Your task to perform on an android device: turn on translation in the chrome app Image 0: 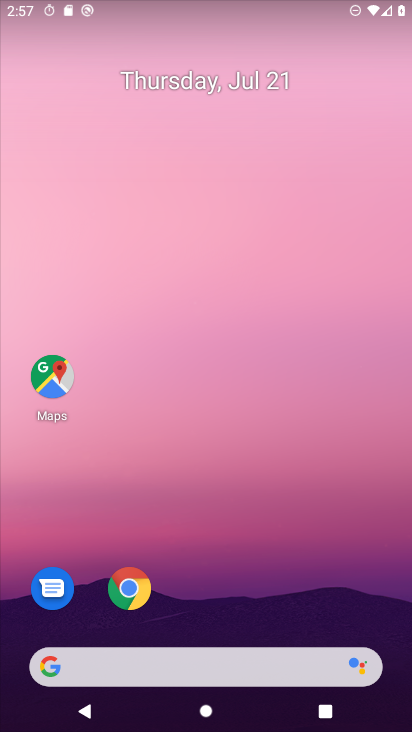
Step 0: drag from (230, 648) to (279, 181)
Your task to perform on an android device: turn on translation in the chrome app Image 1: 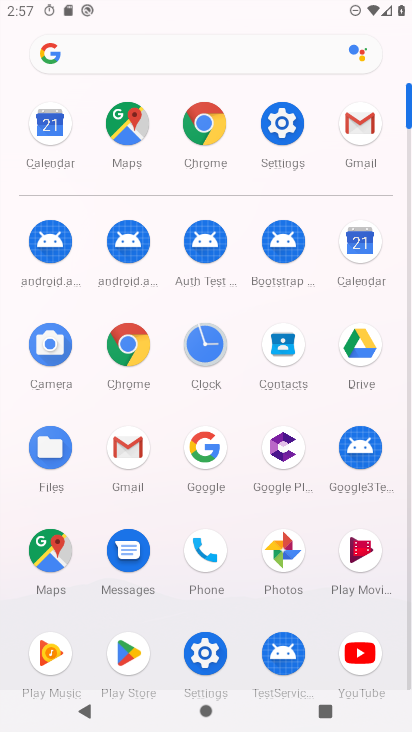
Step 1: click (134, 374)
Your task to perform on an android device: turn on translation in the chrome app Image 2: 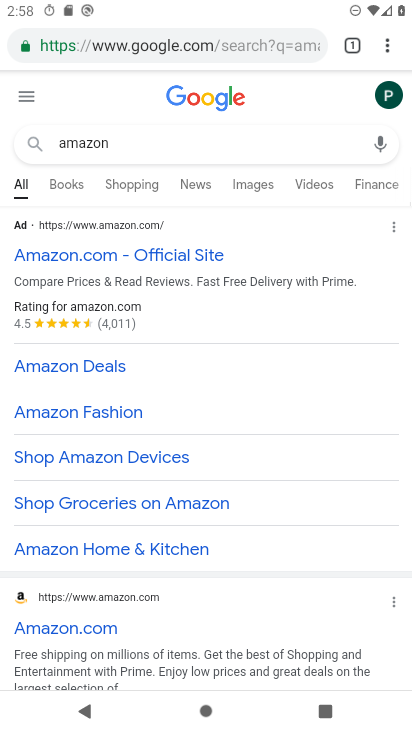
Step 2: click (389, 53)
Your task to perform on an android device: turn on translation in the chrome app Image 3: 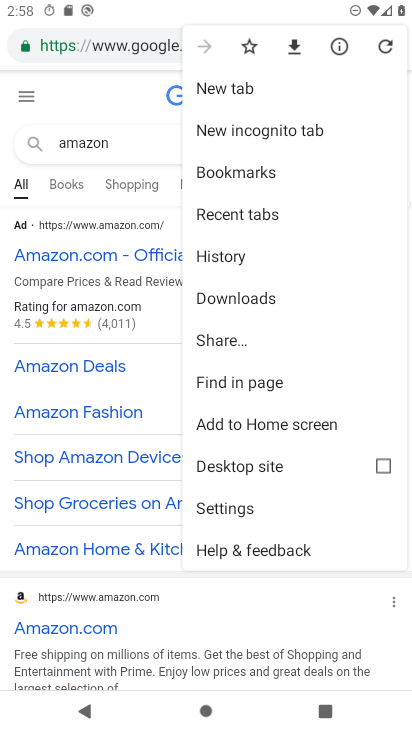
Step 3: drag from (242, 455) to (241, 263)
Your task to perform on an android device: turn on translation in the chrome app Image 4: 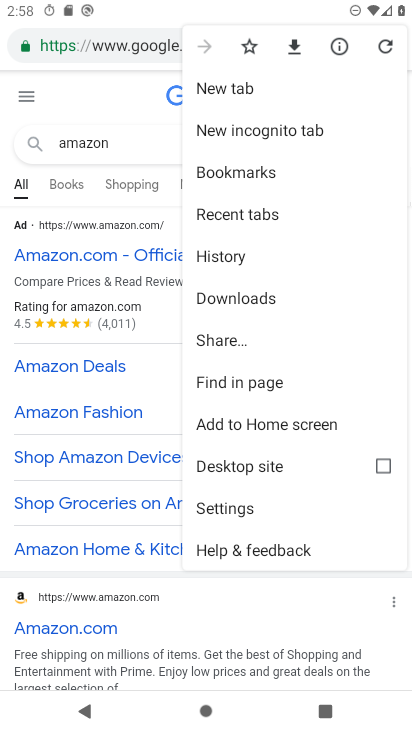
Step 4: click (244, 507)
Your task to perform on an android device: turn on translation in the chrome app Image 5: 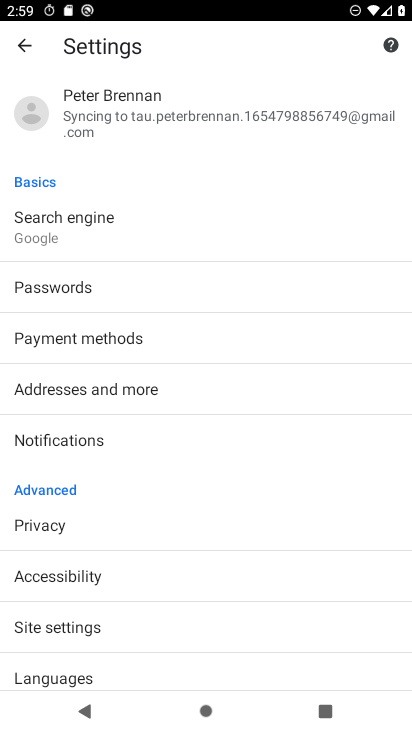
Step 5: task complete